Your task to perform on an android device: toggle translation in the chrome app Image 0: 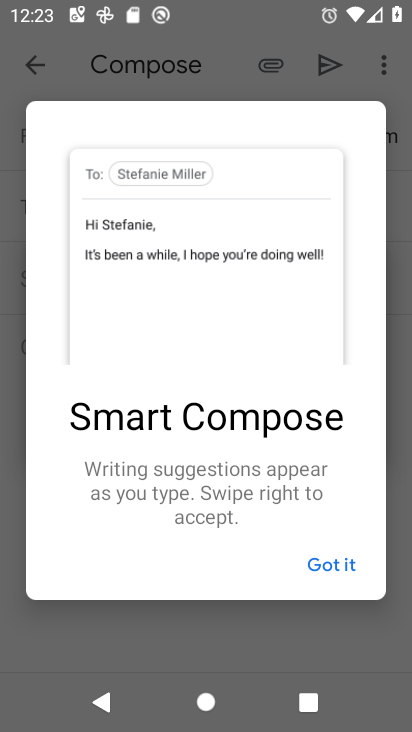
Step 0: press home button
Your task to perform on an android device: toggle translation in the chrome app Image 1: 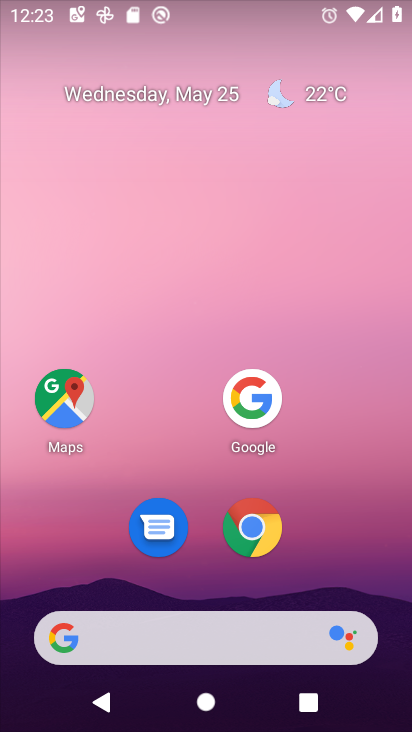
Step 1: click (248, 535)
Your task to perform on an android device: toggle translation in the chrome app Image 2: 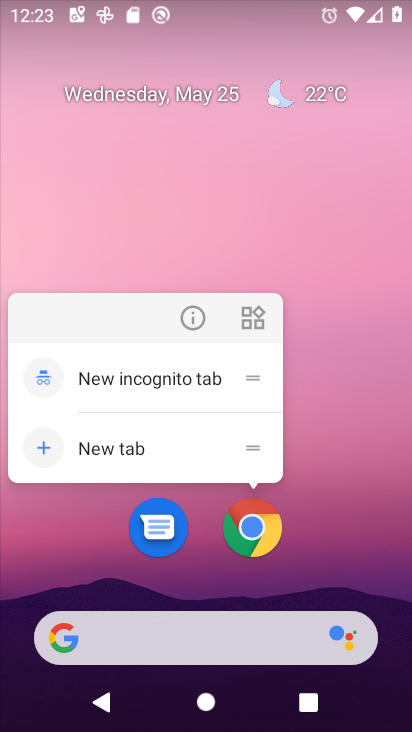
Step 2: click (252, 543)
Your task to perform on an android device: toggle translation in the chrome app Image 3: 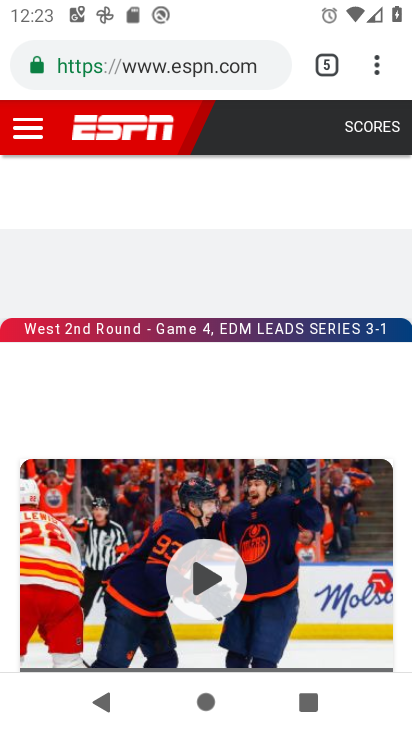
Step 3: drag from (378, 67) to (218, 577)
Your task to perform on an android device: toggle translation in the chrome app Image 4: 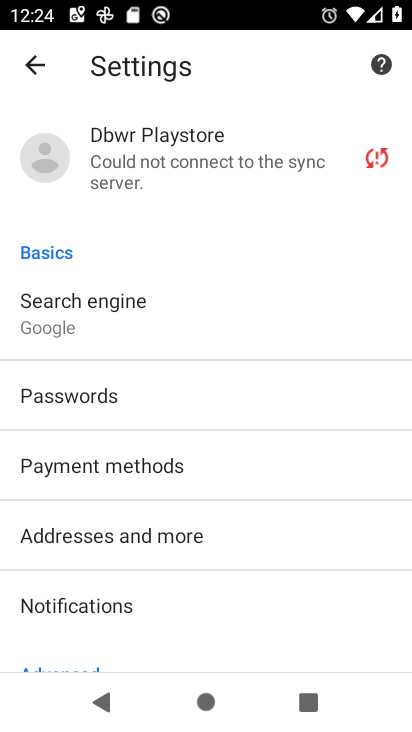
Step 4: drag from (168, 618) to (330, 151)
Your task to perform on an android device: toggle translation in the chrome app Image 5: 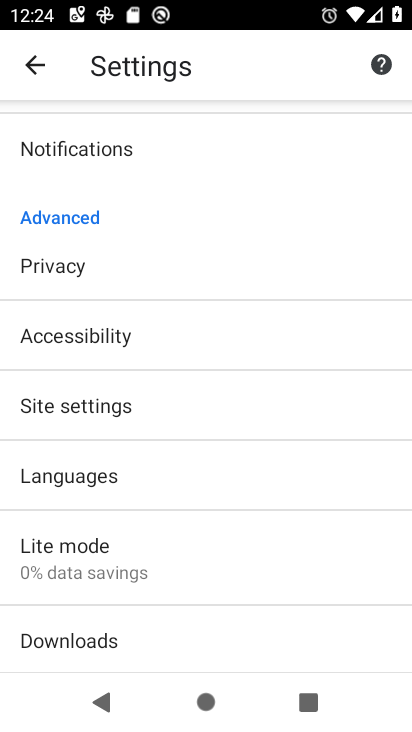
Step 5: click (173, 492)
Your task to perform on an android device: toggle translation in the chrome app Image 6: 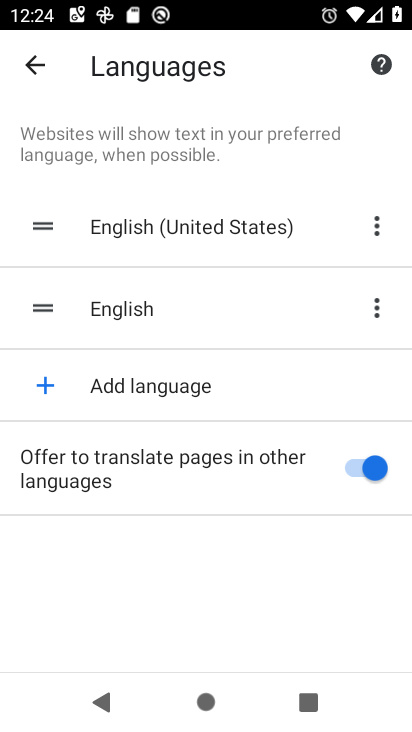
Step 6: click (351, 466)
Your task to perform on an android device: toggle translation in the chrome app Image 7: 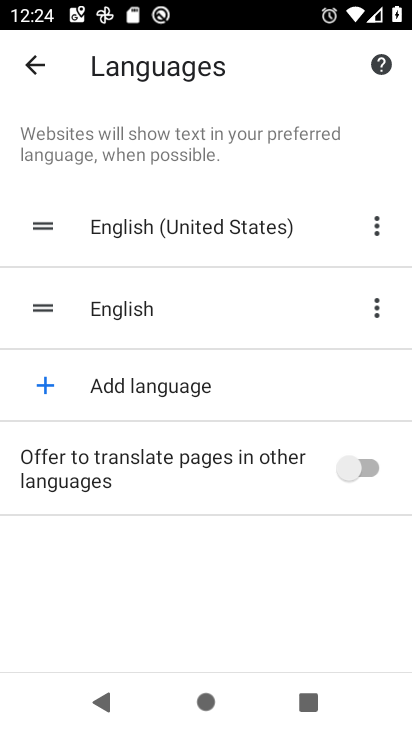
Step 7: task complete